Your task to perform on an android device: Go to calendar. Show me events next week Image 0: 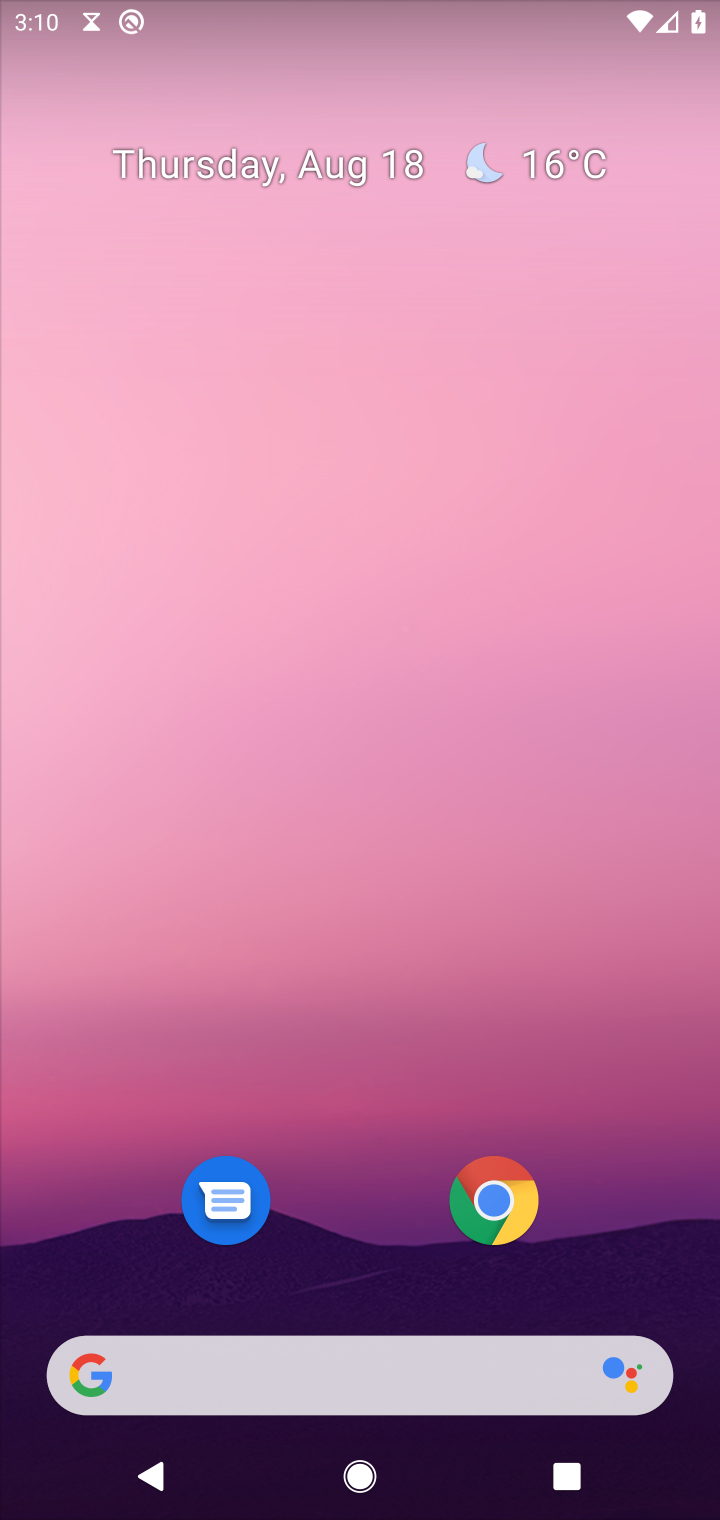
Step 0: drag from (347, 1262) to (19, 132)
Your task to perform on an android device: Go to calendar. Show me events next week Image 1: 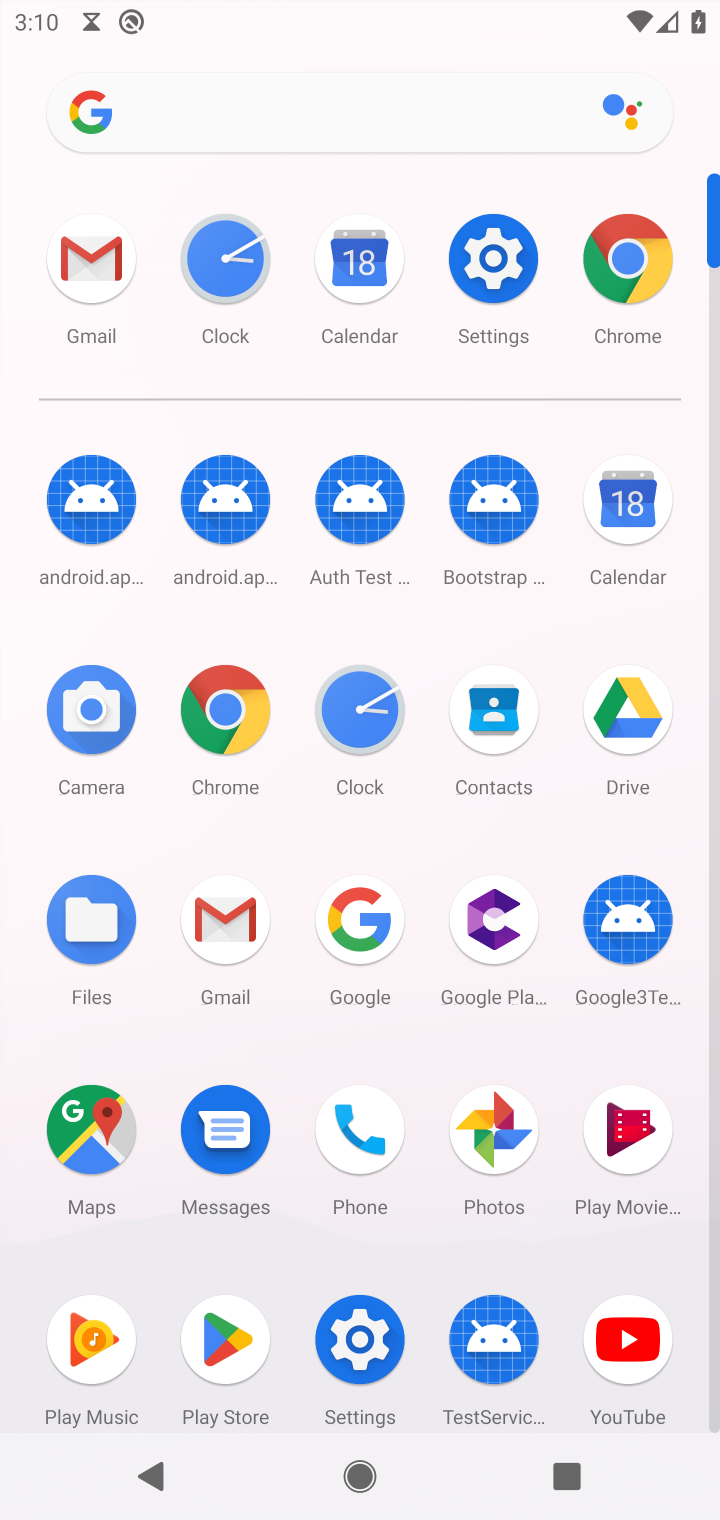
Step 1: click (359, 267)
Your task to perform on an android device: Go to calendar. Show me events next week Image 2: 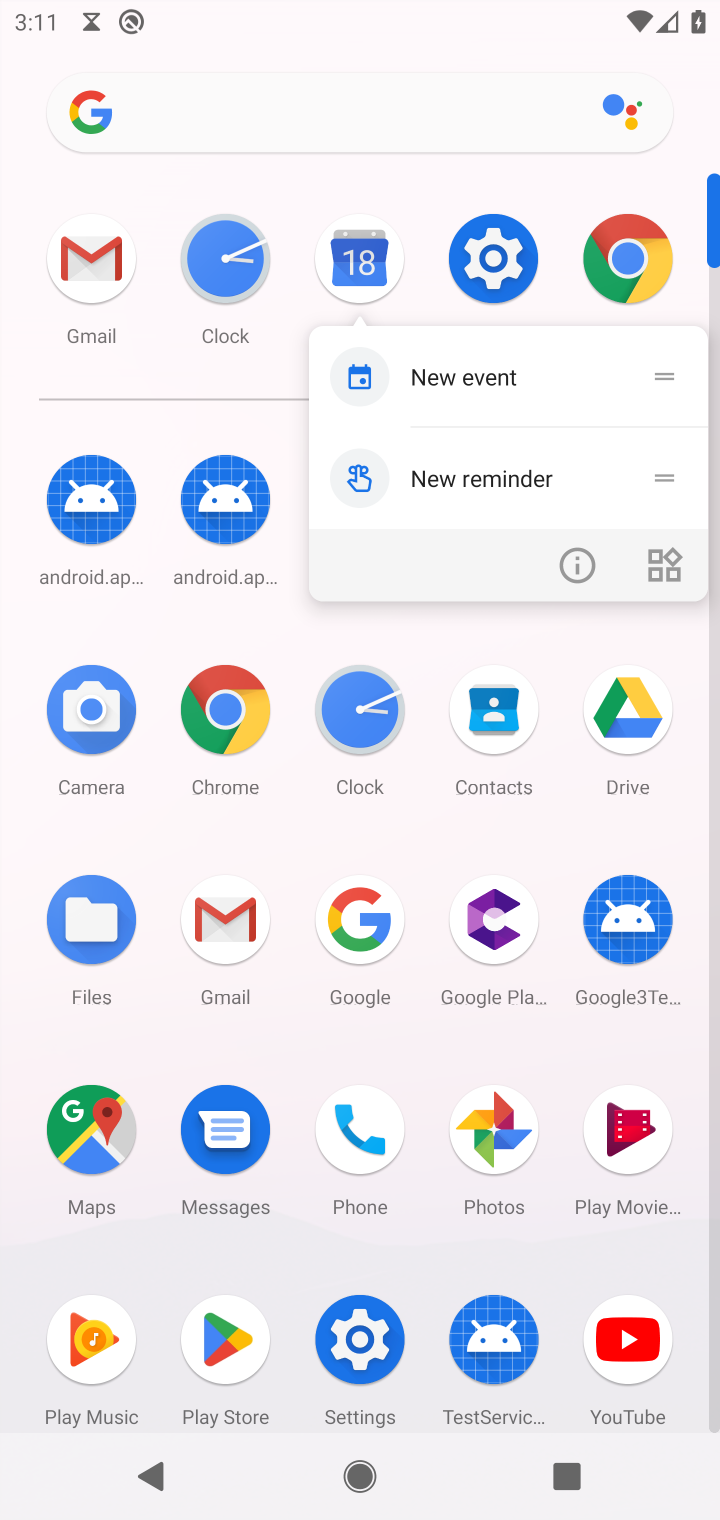
Step 2: click (504, 280)
Your task to perform on an android device: Go to calendar. Show me events next week Image 3: 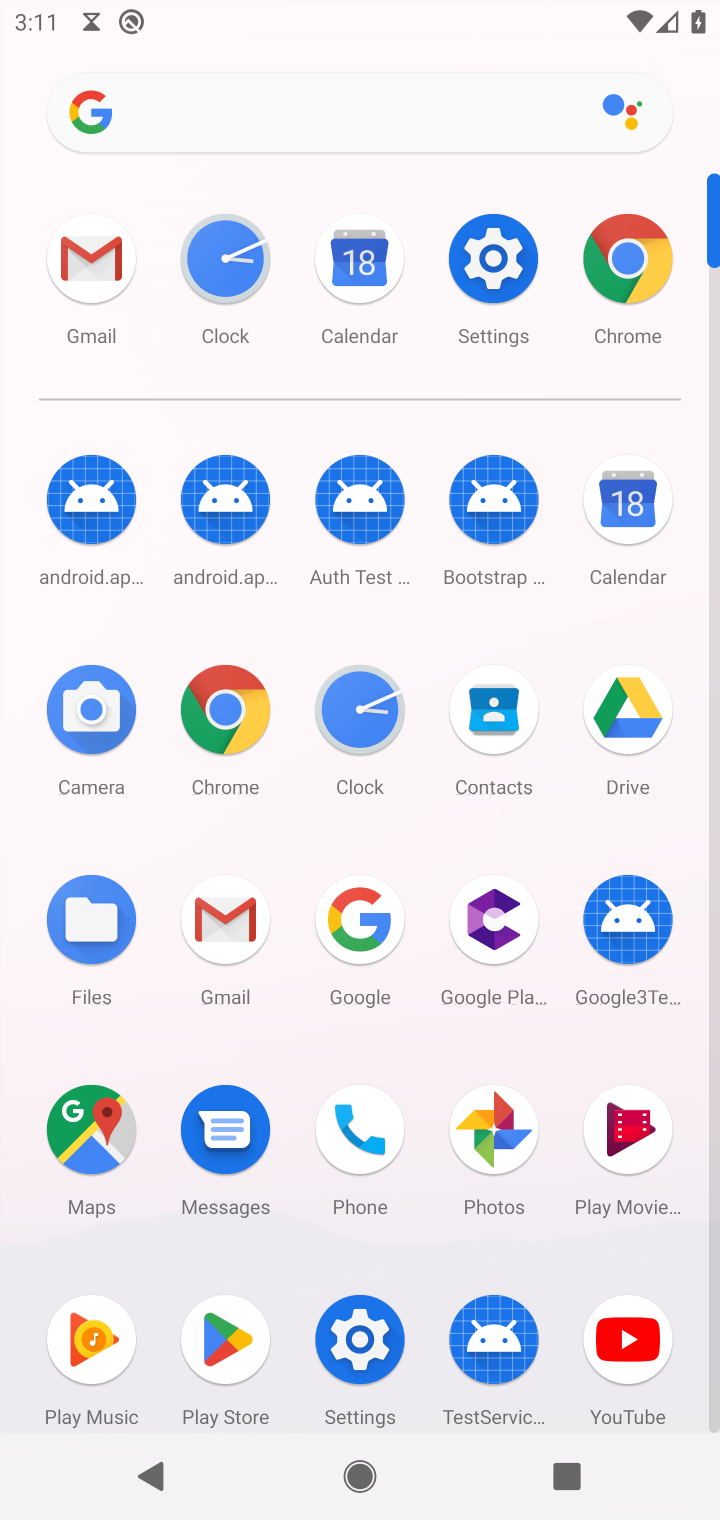
Step 3: click (351, 233)
Your task to perform on an android device: Go to calendar. Show me events next week Image 4: 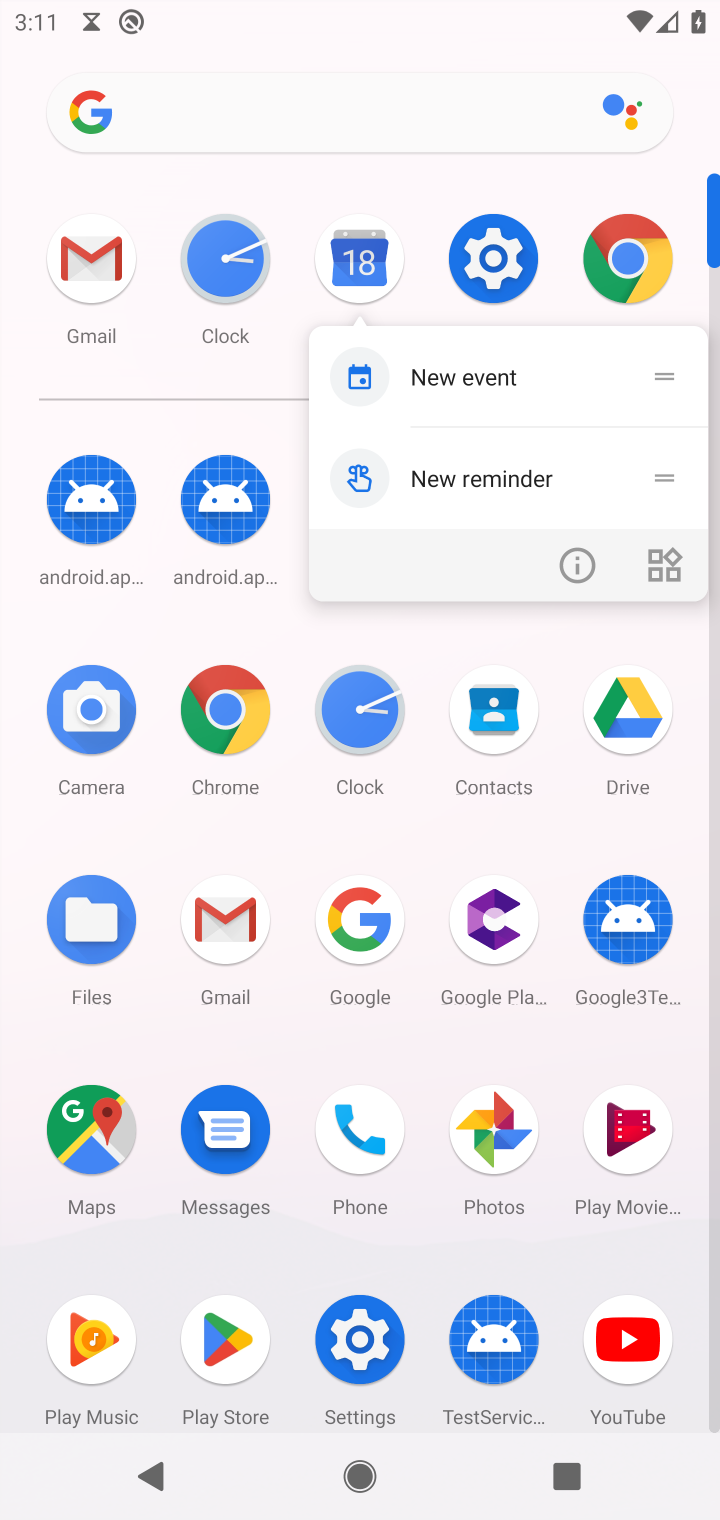
Step 4: click (358, 244)
Your task to perform on an android device: Go to calendar. Show me events next week Image 5: 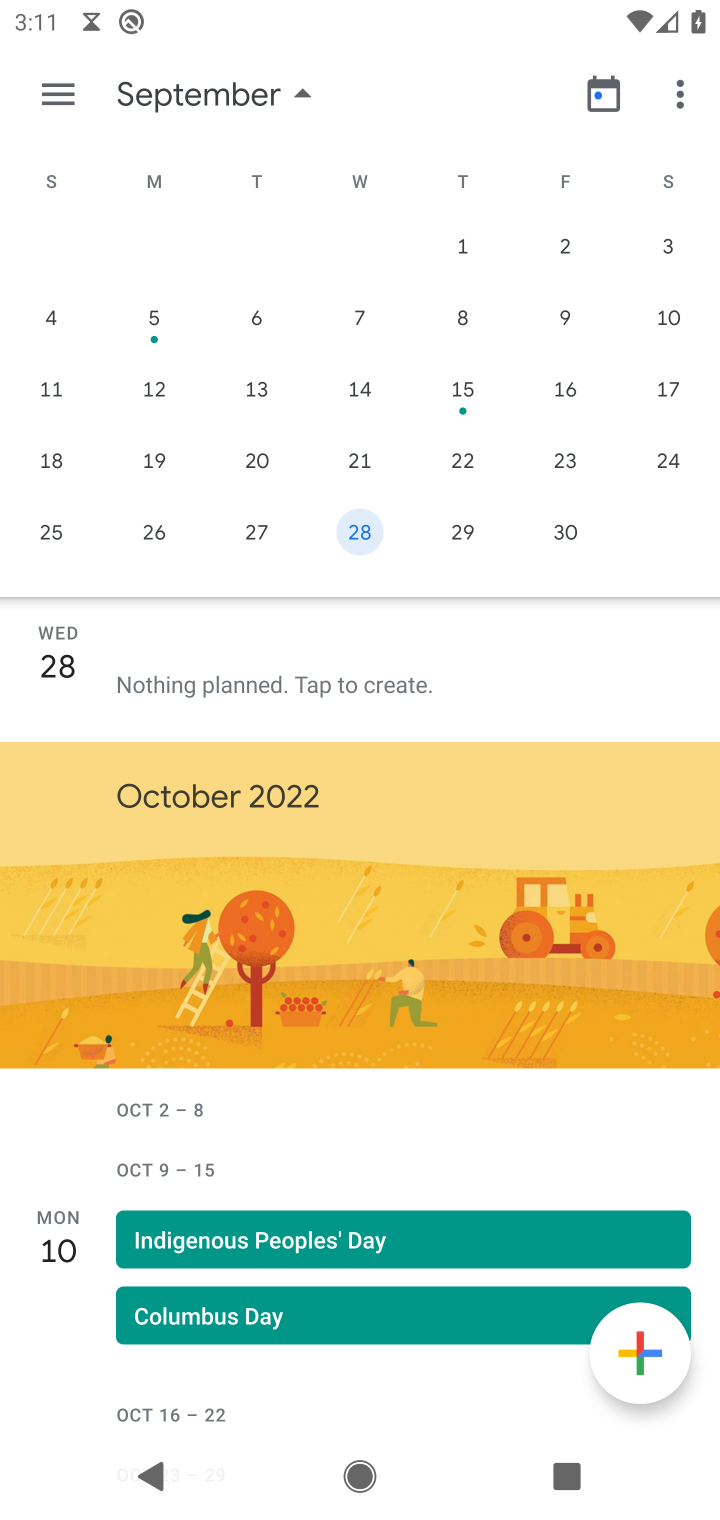
Step 5: click (564, 244)
Your task to perform on an android device: Go to calendar. Show me events next week Image 6: 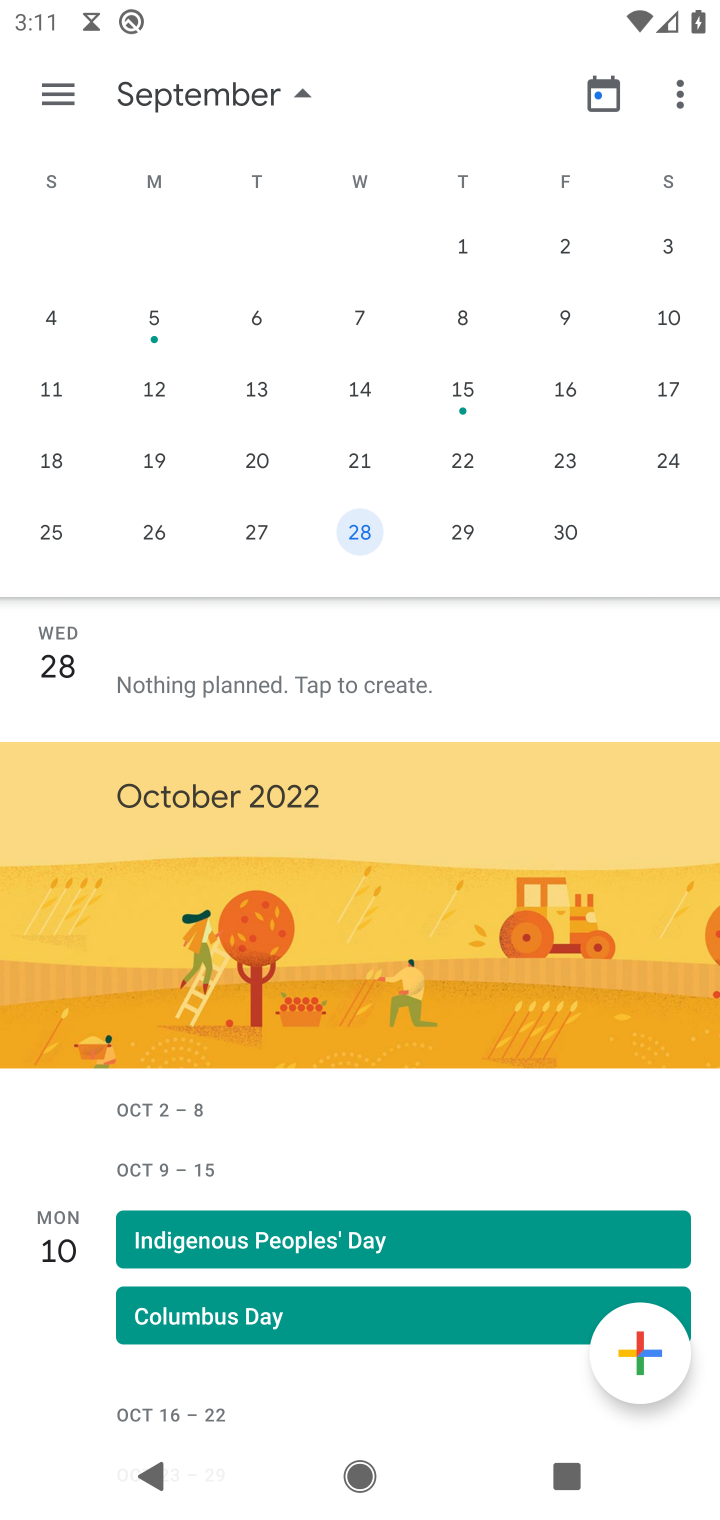
Step 6: task complete